Your task to perform on an android device: Open the map Image 0: 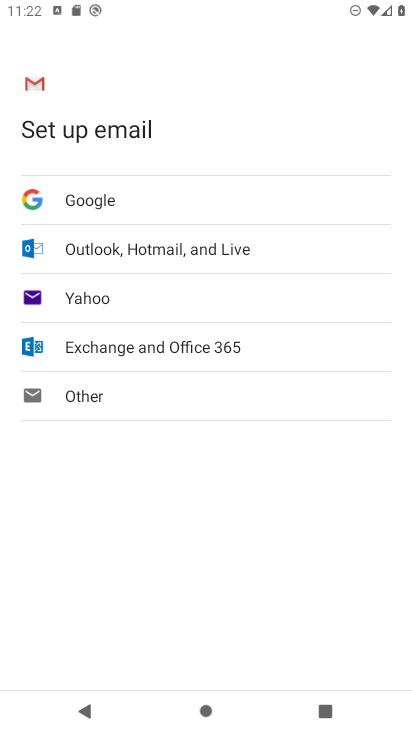
Step 0: press home button
Your task to perform on an android device: Open the map Image 1: 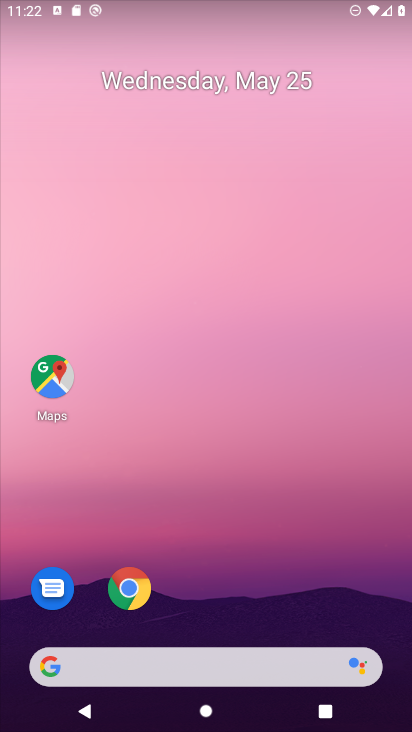
Step 1: click (48, 375)
Your task to perform on an android device: Open the map Image 2: 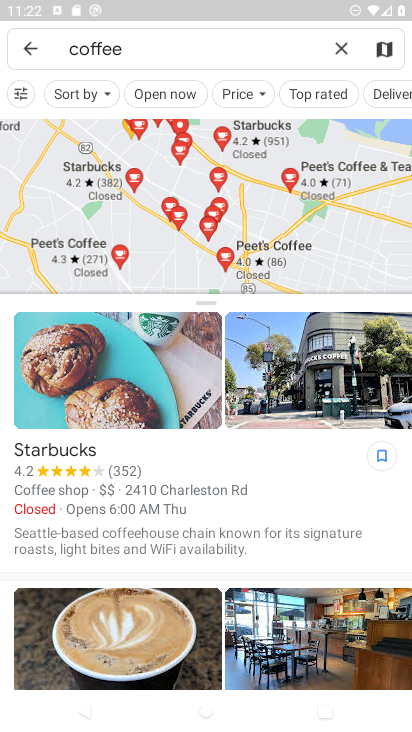
Step 2: click (343, 47)
Your task to perform on an android device: Open the map Image 3: 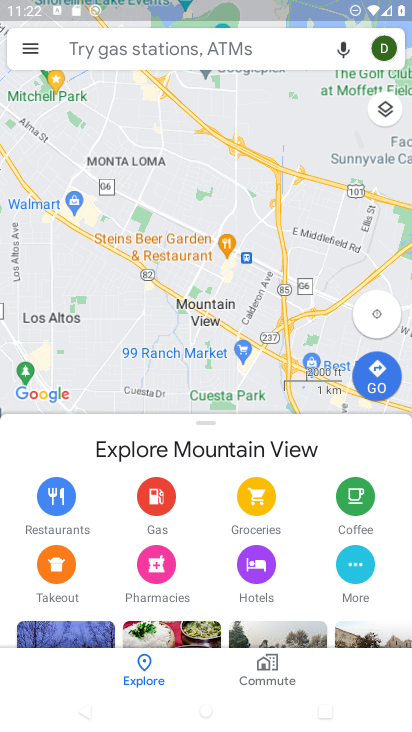
Step 3: task complete